Your task to perform on an android device: Open location settings Image 0: 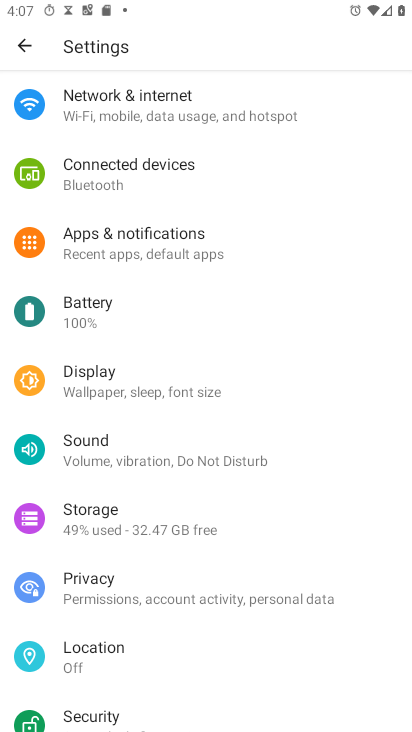
Step 0: click (89, 654)
Your task to perform on an android device: Open location settings Image 1: 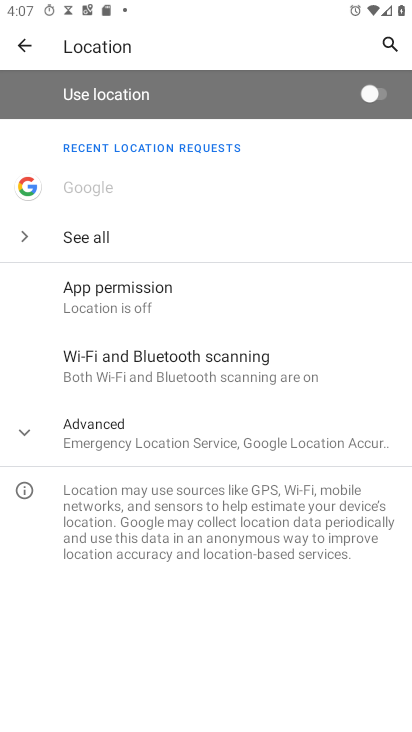
Step 1: task complete